Your task to perform on an android device: Open calendar and show me the first week of next month Image 0: 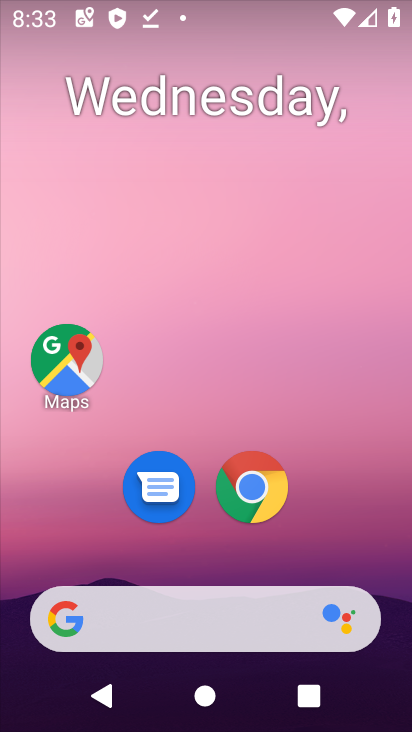
Step 0: drag from (376, 669) to (130, 116)
Your task to perform on an android device: Open calendar and show me the first week of next month Image 1: 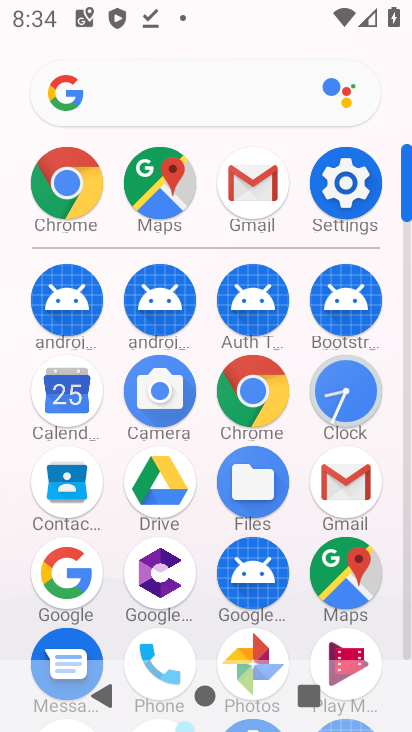
Step 1: click (67, 403)
Your task to perform on an android device: Open calendar and show me the first week of next month Image 2: 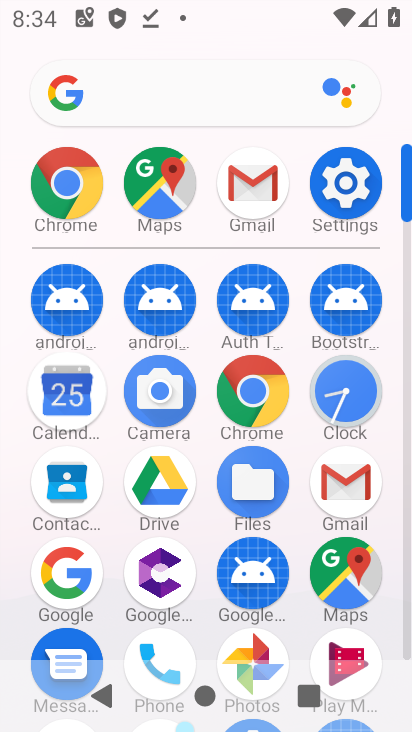
Step 2: click (75, 395)
Your task to perform on an android device: Open calendar and show me the first week of next month Image 3: 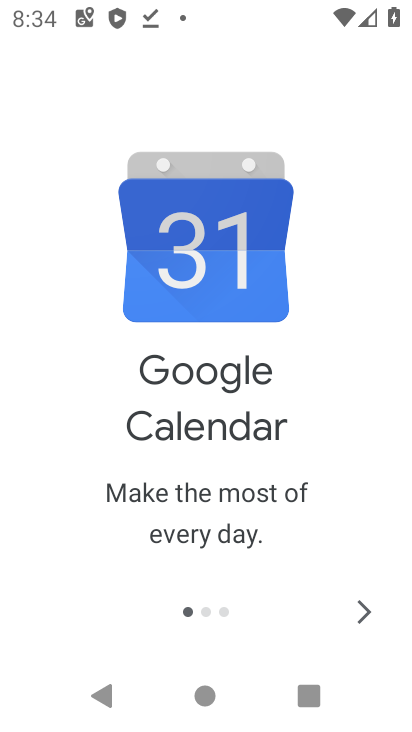
Step 3: click (365, 614)
Your task to perform on an android device: Open calendar and show me the first week of next month Image 4: 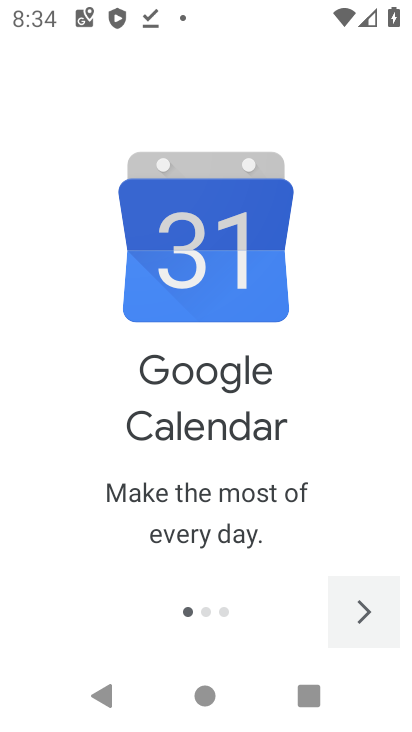
Step 4: click (366, 613)
Your task to perform on an android device: Open calendar and show me the first week of next month Image 5: 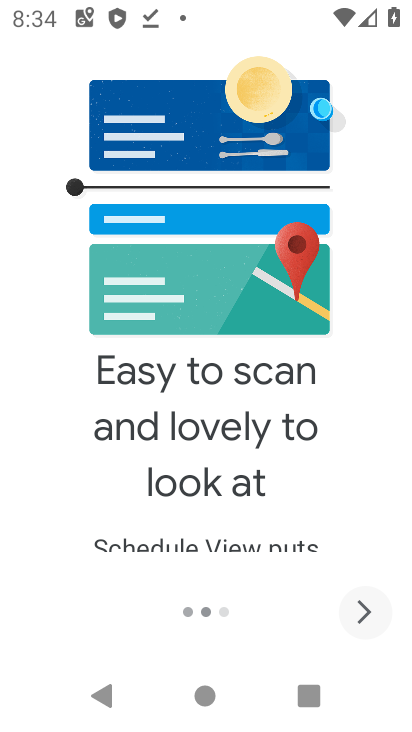
Step 5: click (366, 613)
Your task to perform on an android device: Open calendar and show me the first week of next month Image 6: 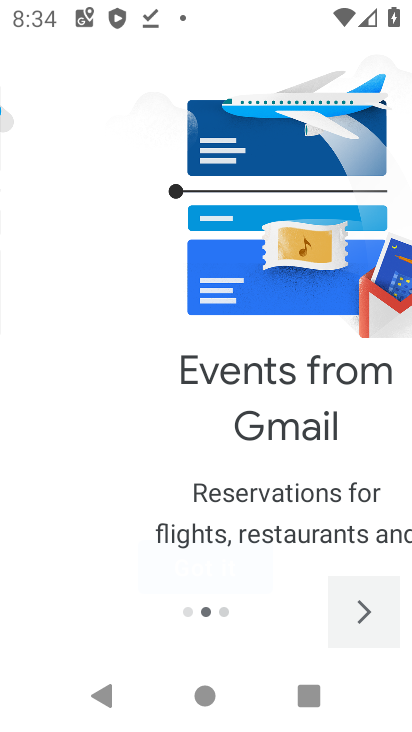
Step 6: click (366, 613)
Your task to perform on an android device: Open calendar and show me the first week of next month Image 7: 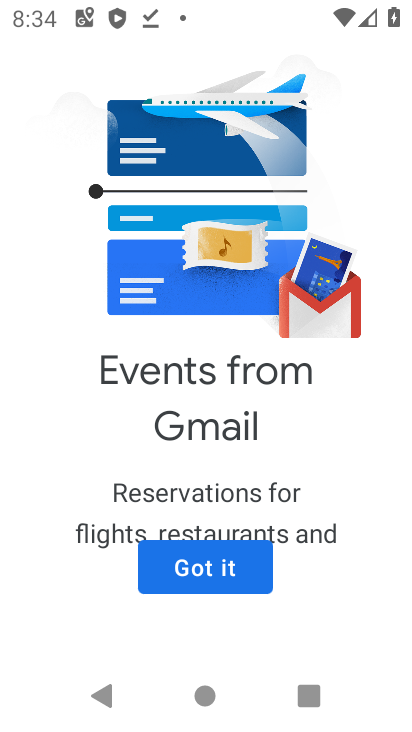
Step 7: click (366, 613)
Your task to perform on an android device: Open calendar and show me the first week of next month Image 8: 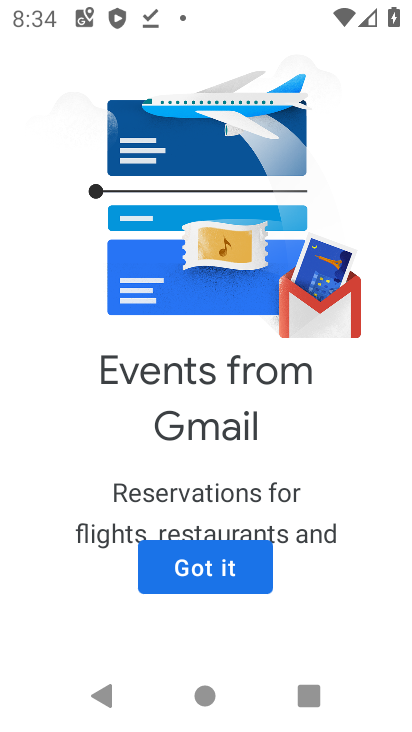
Step 8: click (214, 561)
Your task to perform on an android device: Open calendar and show me the first week of next month Image 9: 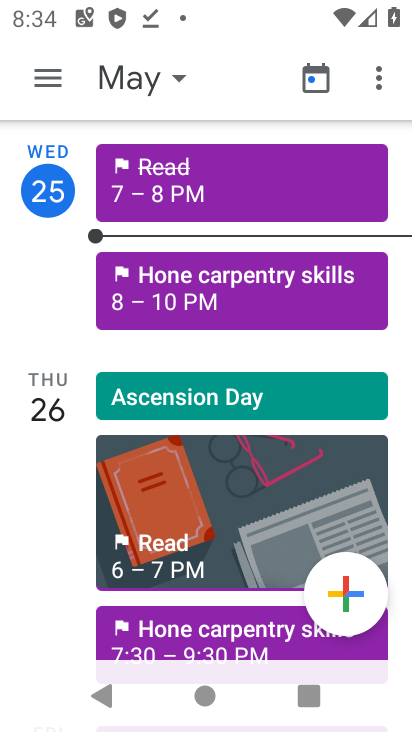
Step 9: click (178, 83)
Your task to perform on an android device: Open calendar and show me the first week of next month Image 10: 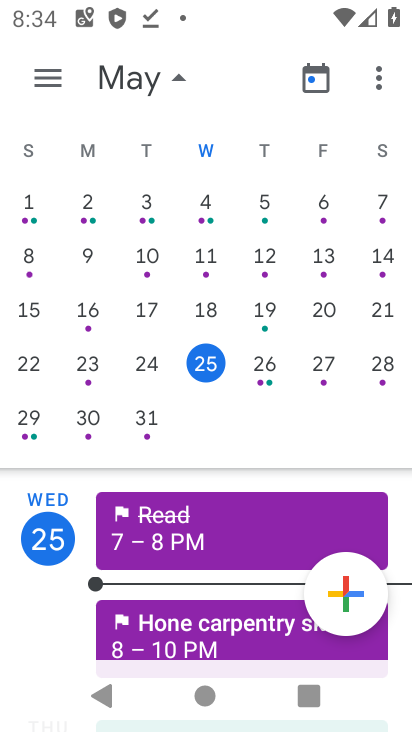
Step 10: drag from (316, 297) to (32, 362)
Your task to perform on an android device: Open calendar and show me the first week of next month Image 11: 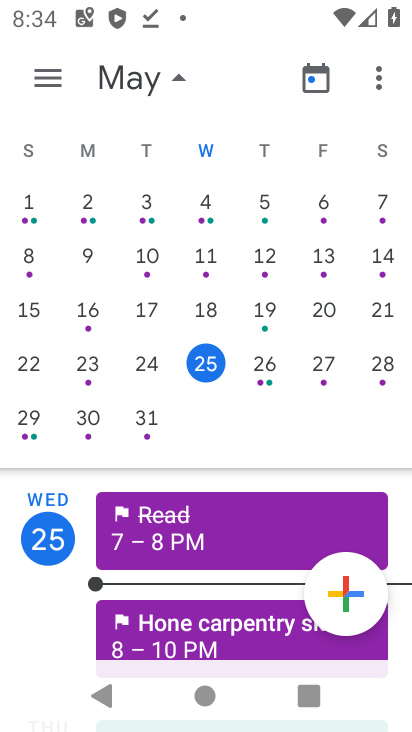
Step 11: drag from (310, 235) to (21, 335)
Your task to perform on an android device: Open calendar and show me the first week of next month Image 12: 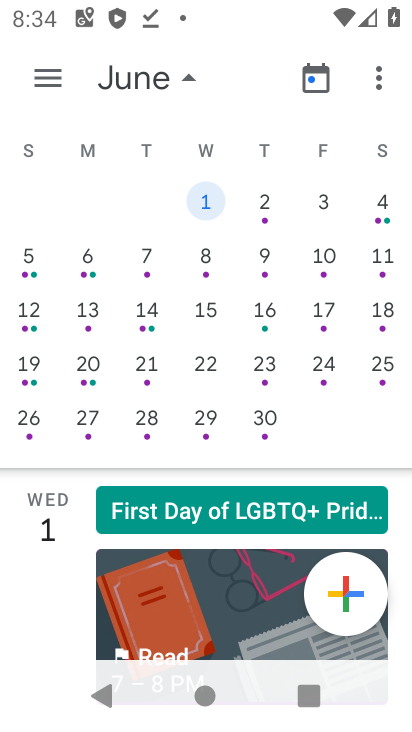
Step 12: click (208, 199)
Your task to perform on an android device: Open calendar and show me the first week of next month Image 13: 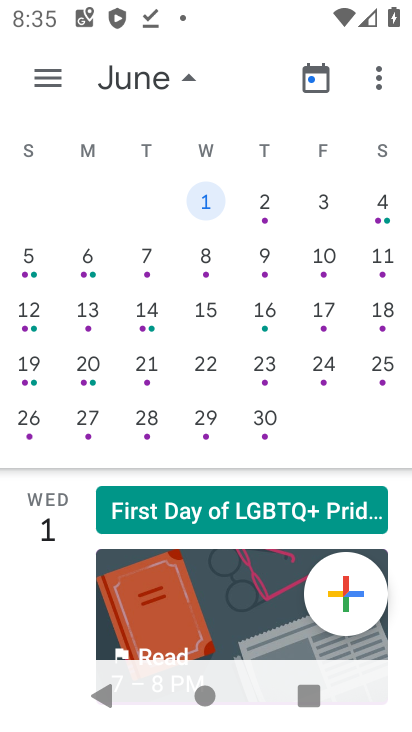
Step 13: task complete